Your task to perform on an android device: set the timer Image 0: 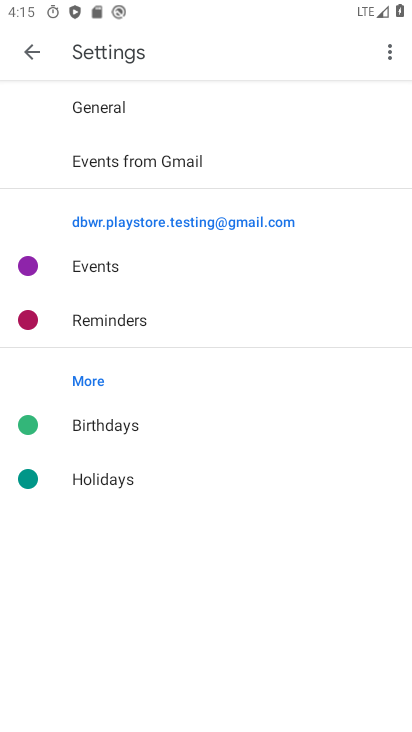
Step 0: press home button
Your task to perform on an android device: set the timer Image 1: 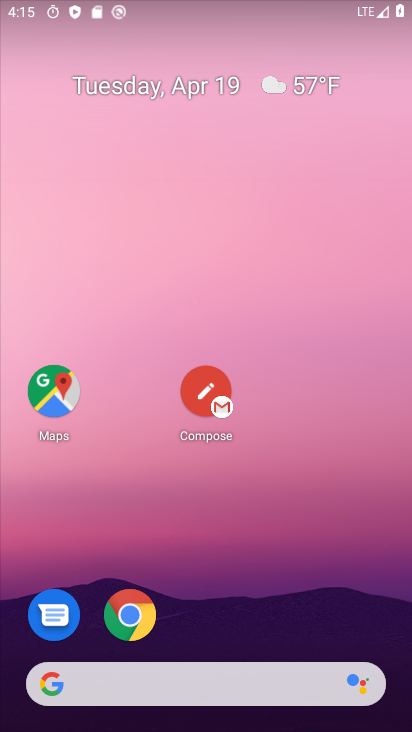
Step 1: drag from (250, 612) to (236, 109)
Your task to perform on an android device: set the timer Image 2: 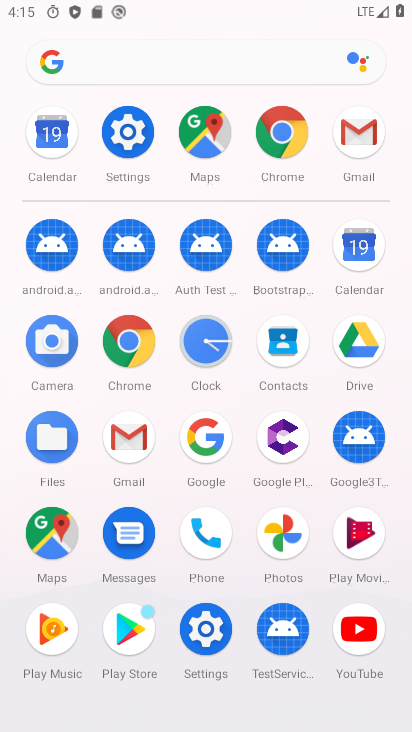
Step 2: click (209, 637)
Your task to perform on an android device: set the timer Image 3: 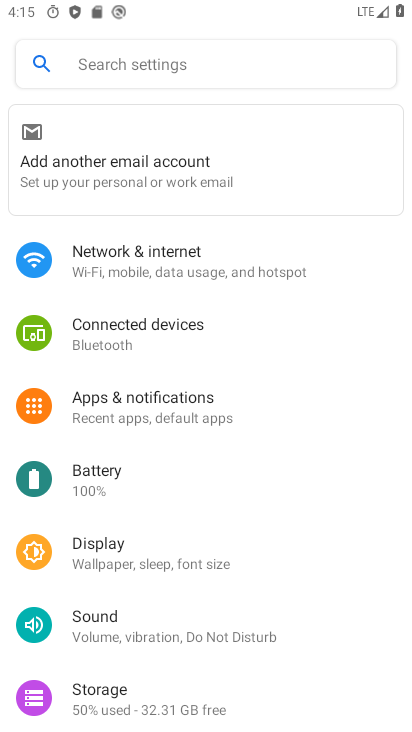
Step 3: press home button
Your task to perform on an android device: set the timer Image 4: 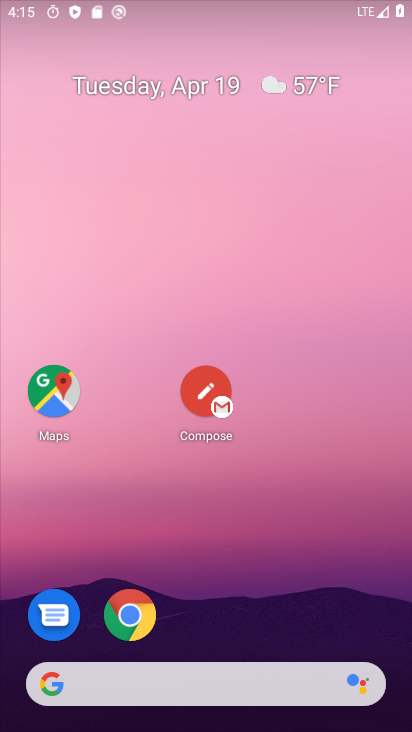
Step 4: drag from (251, 642) to (266, 64)
Your task to perform on an android device: set the timer Image 5: 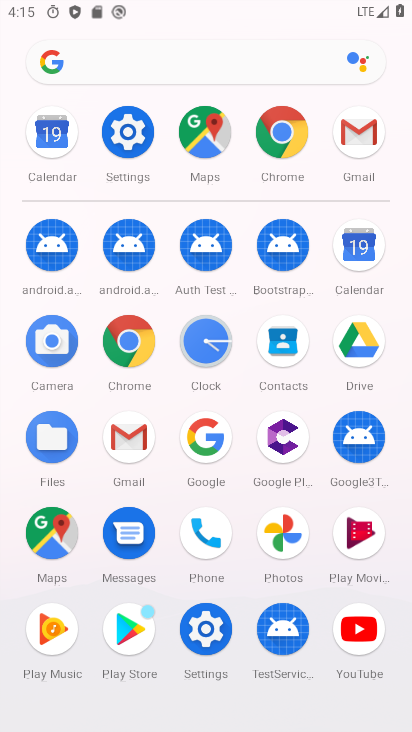
Step 5: click (219, 341)
Your task to perform on an android device: set the timer Image 6: 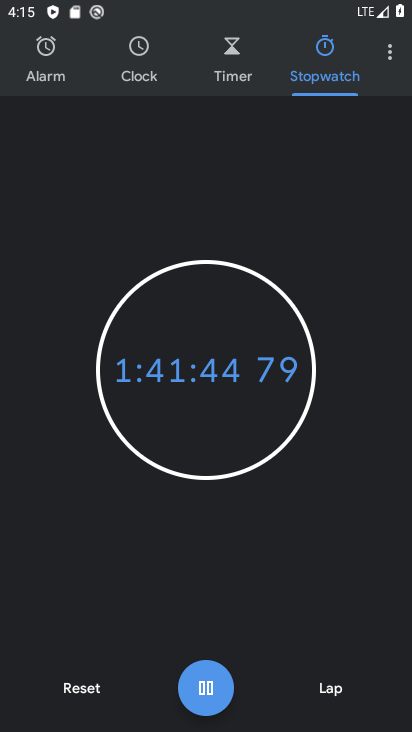
Step 6: click (394, 59)
Your task to perform on an android device: set the timer Image 7: 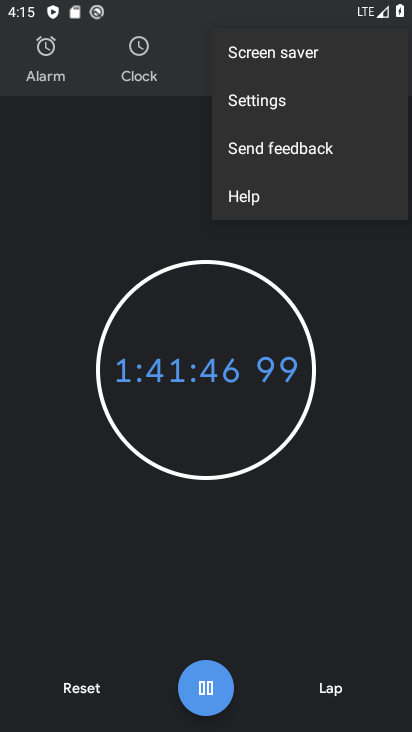
Step 7: click (279, 92)
Your task to perform on an android device: set the timer Image 8: 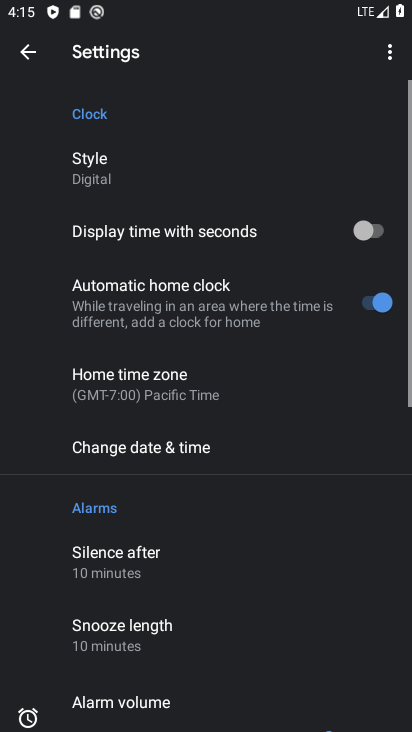
Step 8: drag from (310, 686) to (312, 144)
Your task to perform on an android device: set the timer Image 9: 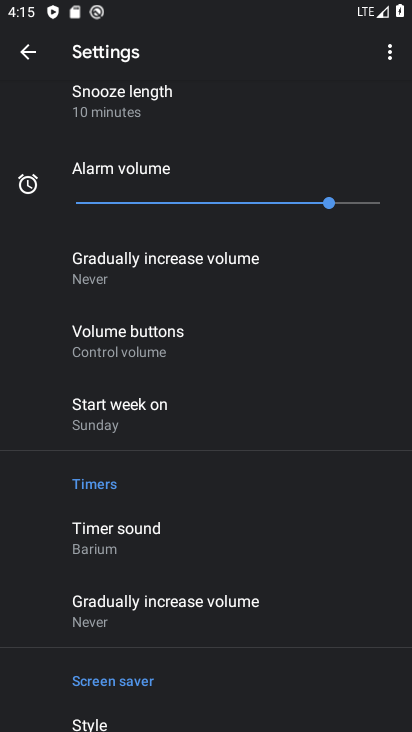
Step 9: click (186, 555)
Your task to perform on an android device: set the timer Image 10: 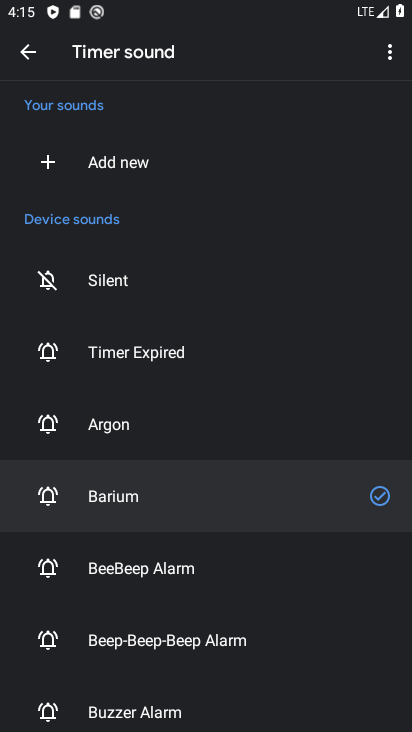
Step 10: click (187, 570)
Your task to perform on an android device: set the timer Image 11: 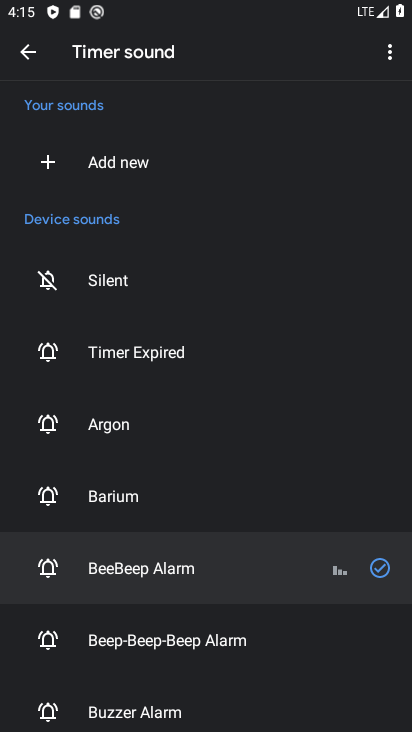
Step 11: task complete